Your task to perform on an android device: Go to Amazon Image 0: 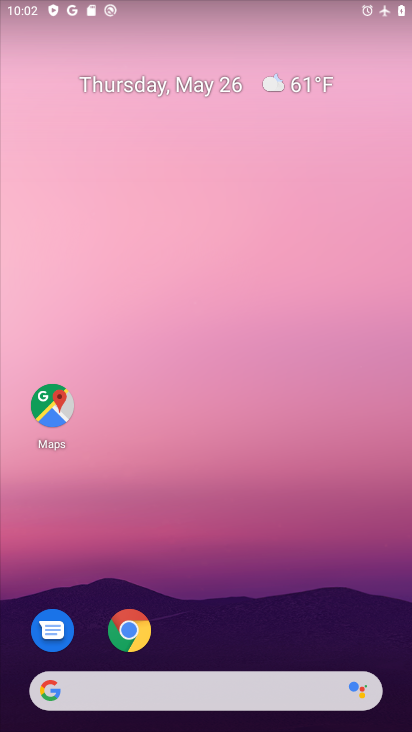
Step 0: click (123, 629)
Your task to perform on an android device: Go to Amazon Image 1: 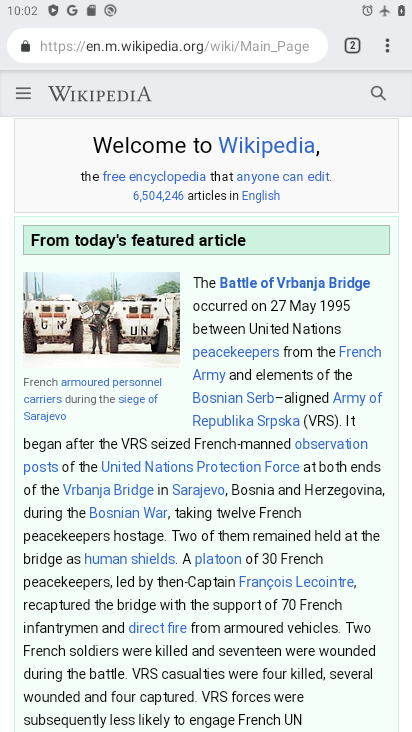
Step 1: click (345, 39)
Your task to perform on an android device: Go to Amazon Image 2: 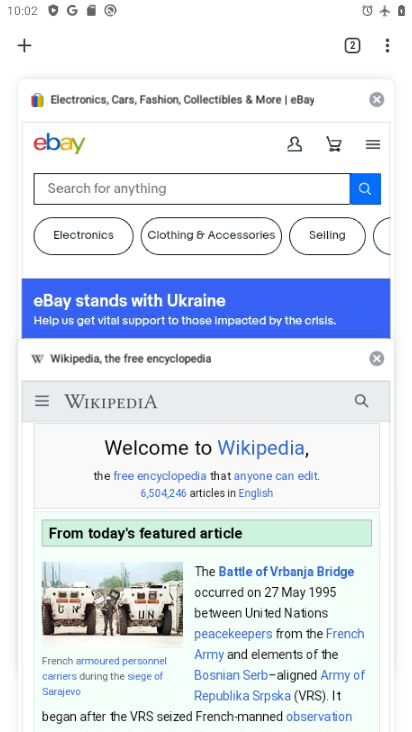
Step 2: click (15, 43)
Your task to perform on an android device: Go to Amazon Image 3: 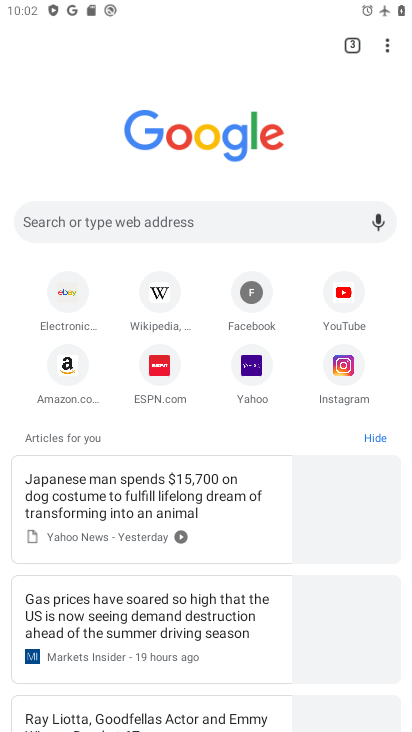
Step 3: click (74, 362)
Your task to perform on an android device: Go to Amazon Image 4: 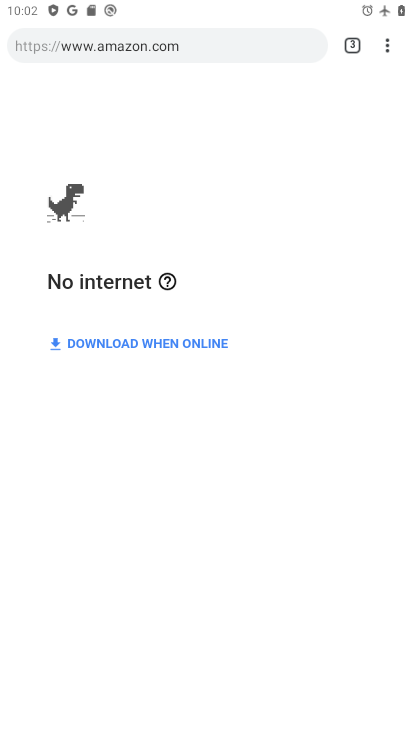
Step 4: task complete